Your task to perform on an android device: turn off javascript in the chrome app Image 0: 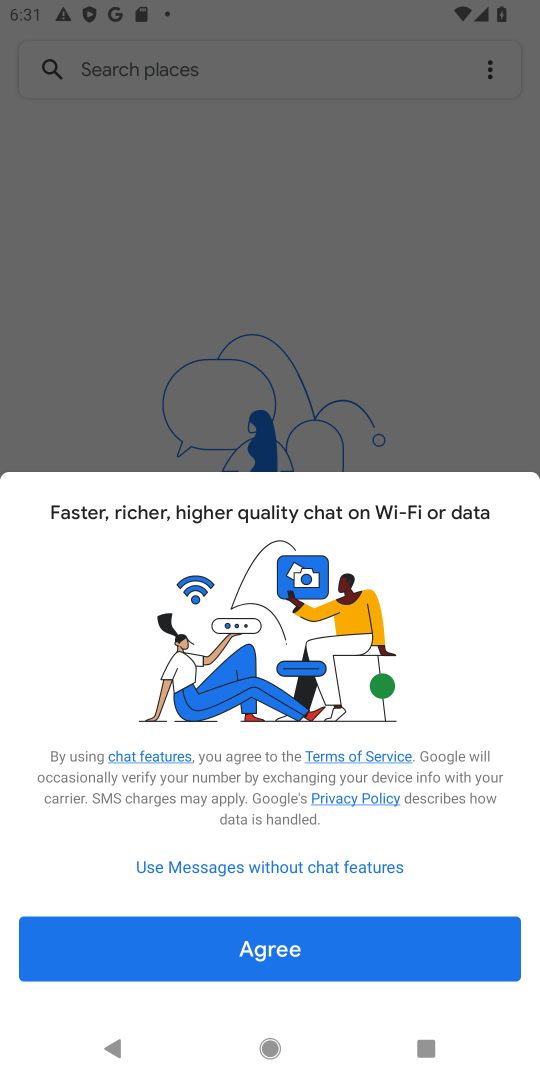
Step 0: press home button
Your task to perform on an android device: turn off javascript in the chrome app Image 1: 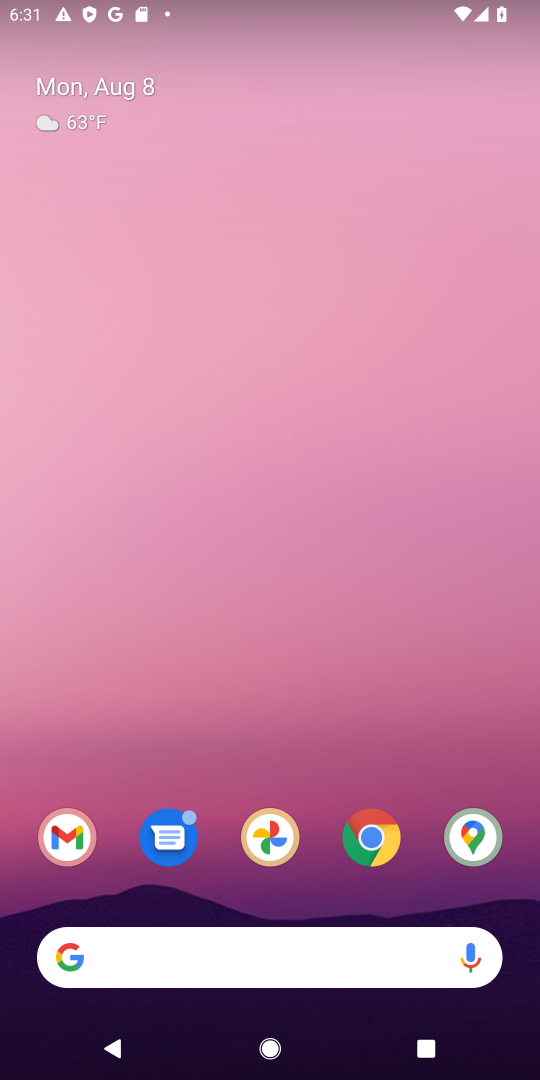
Step 1: drag from (267, 457) to (277, 96)
Your task to perform on an android device: turn off javascript in the chrome app Image 2: 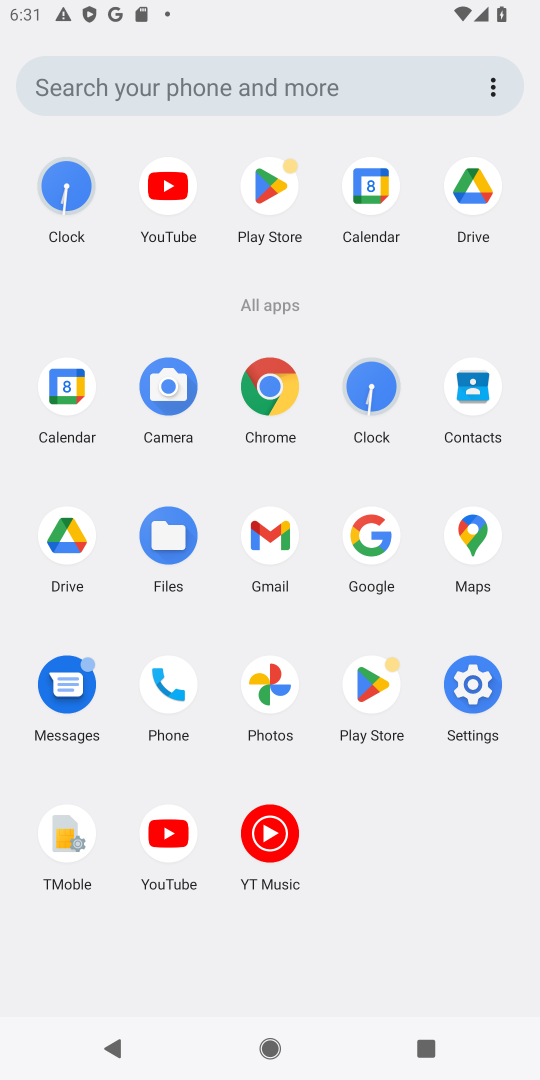
Step 2: click (280, 400)
Your task to perform on an android device: turn off javascript in the chrome app Image 3: 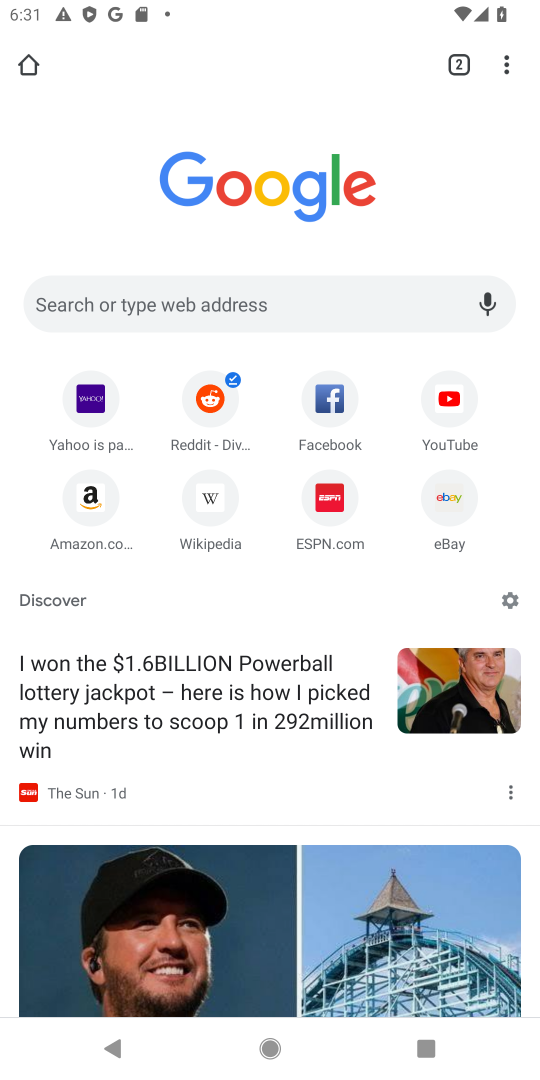
Step 3: drag from (497, 69) to (303, 651)
Your task to perform on an android device: turn off javascript in the chrome app Image 4: 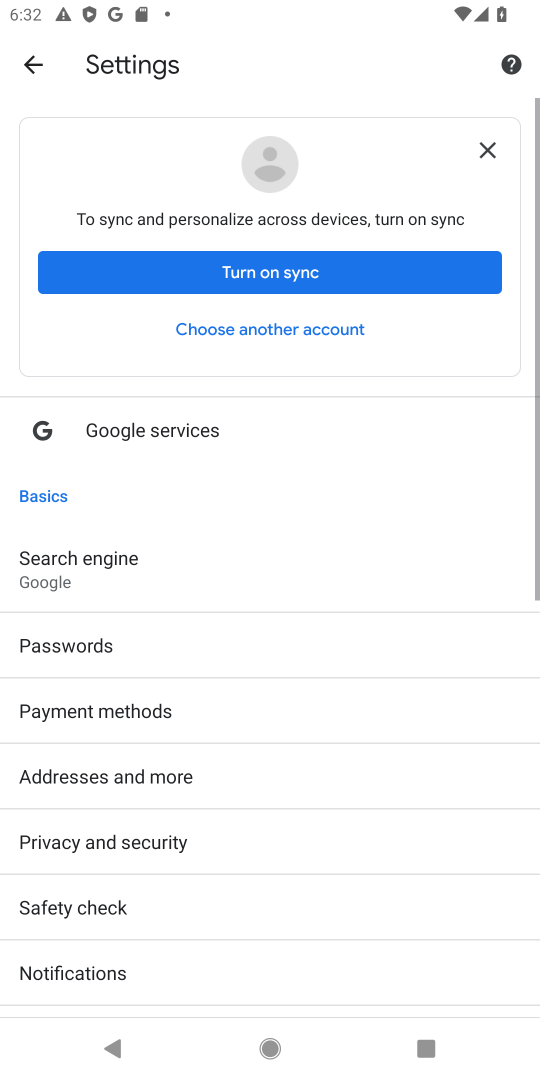
Step 4: drag from (60, 854) to (153, 249)
Your task to perform on an android device: turn off javascript in the chrome app Image 5: 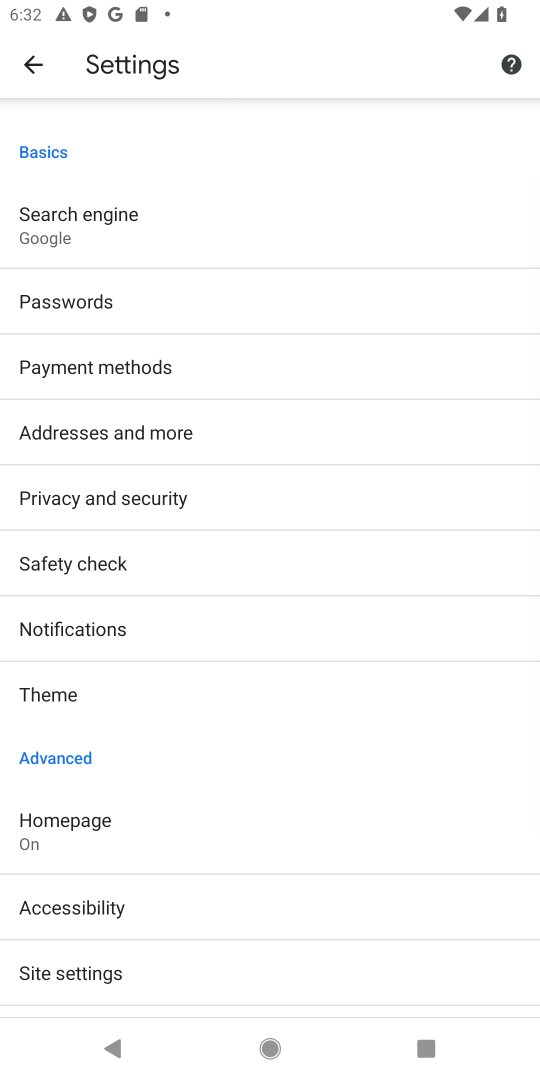
Step 5: drag from (258, 998) to (324, 289)
Your task to perform on an android device: turn off javascript in the chrome app Image 6: 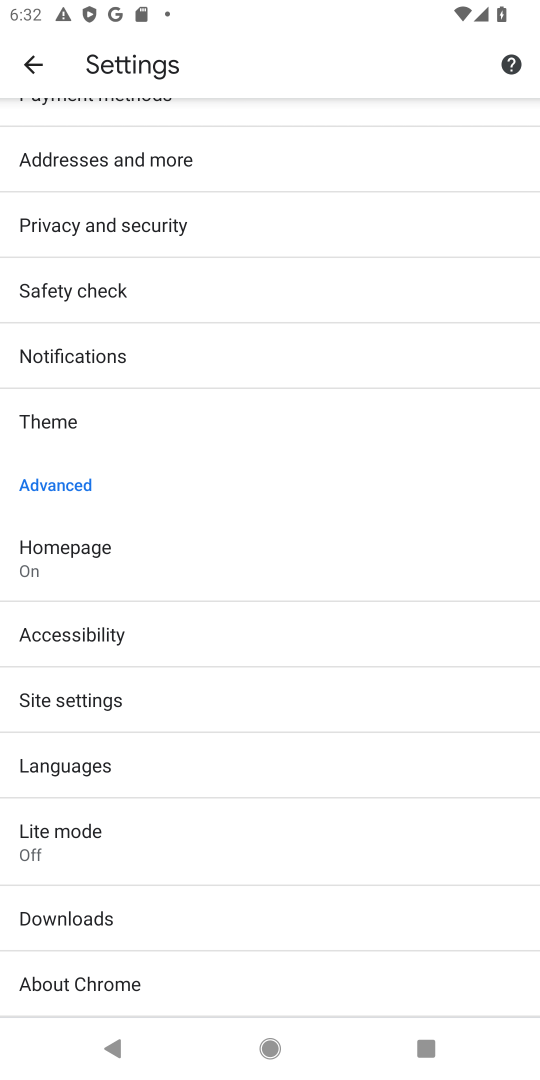
Step 6: click (155, 696)
Your task to perform on an android device: turn off javascript in the chrome app Image 7: 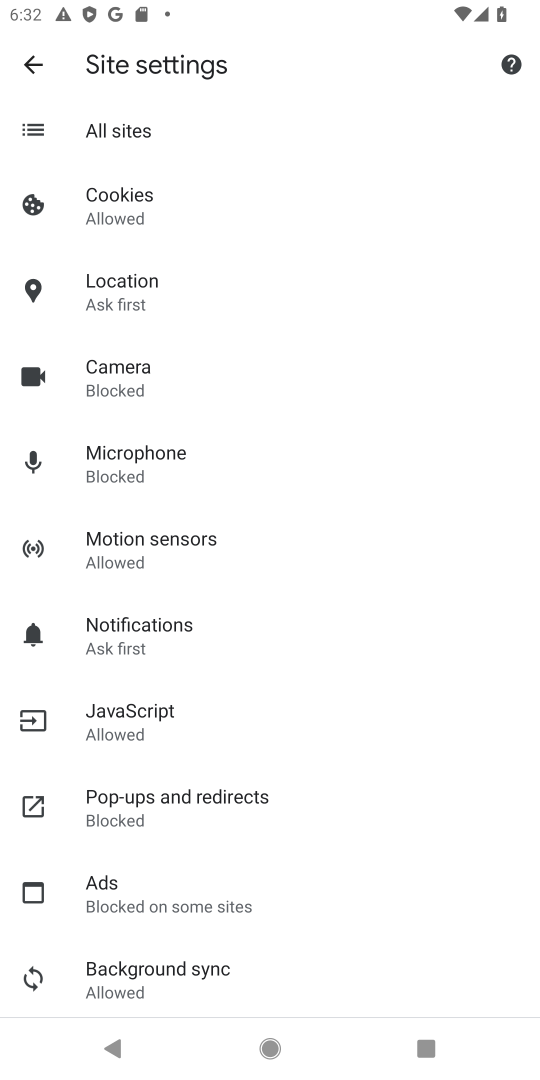
Step 7: click (98, 723)
Your task to perform on an android device: turn off javascript in the chrome app Image 8: 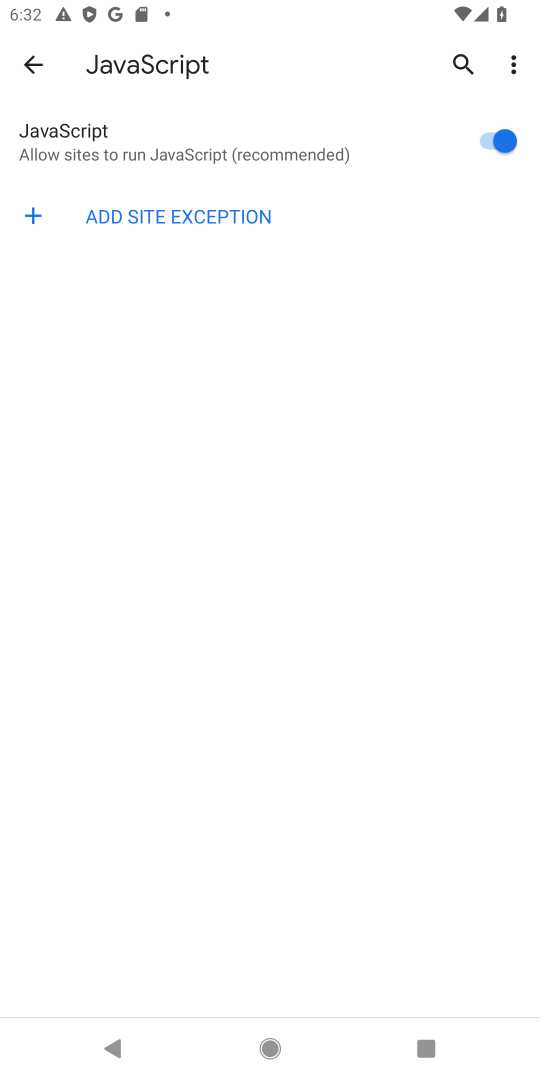
Step 8: click (482, 138)
Your task to perform on an android device: turn off javascript in the chrome app Image 9: 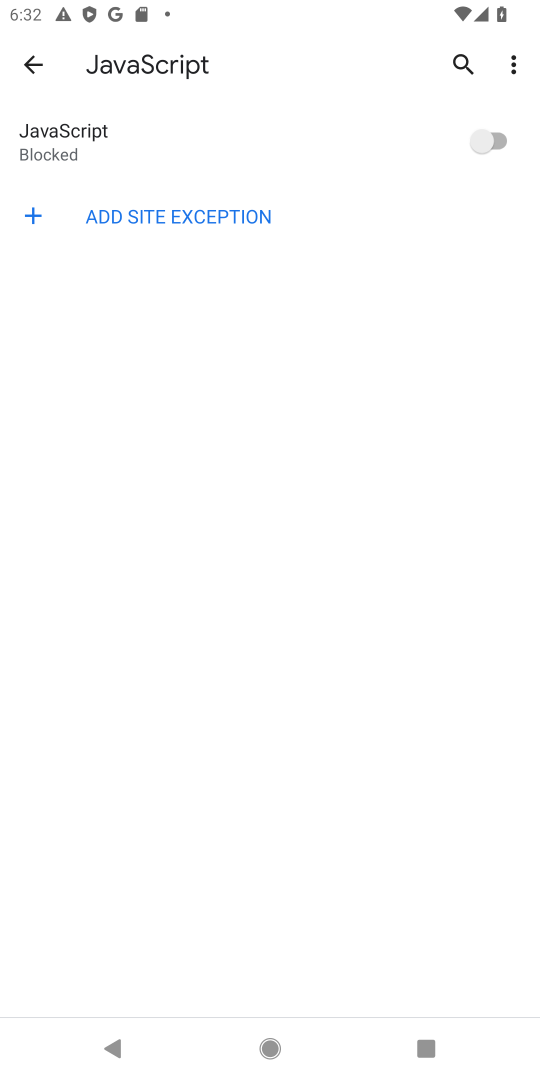
Step 9: task complete